Your task to perform on an android device: Search for Mexican restaurants on Maps Image 0: 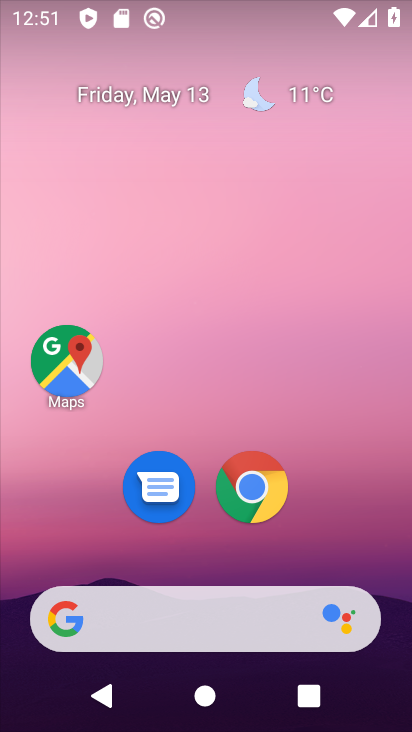
Step 0: click (268, 501)
Your task to perform on an android device: Search for Mexican restaurants on Maps Image 1: 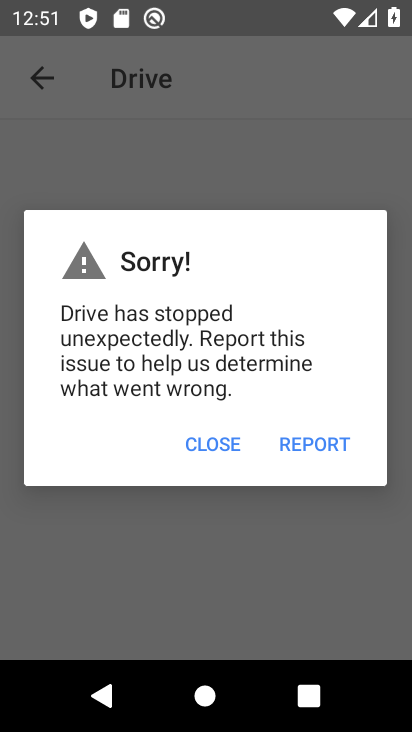
Step 1: press home button
Your task to perform on an android device: Search for Mexican restaurants on Maps Image 2: 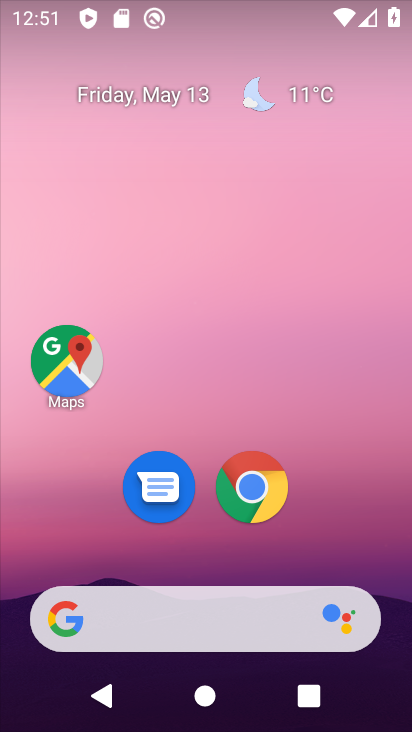
Step 2: click (69, 370)
Your task to perform on an android device: Search for Mexican restaurants on Maps Image 3: 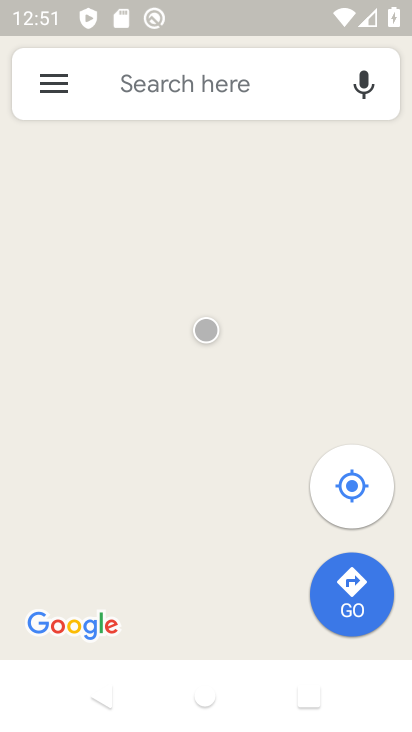
Step 3: click (224, 93)
Your task to perform on an android device: Search for Mexican restaurants on Maps Image 4: 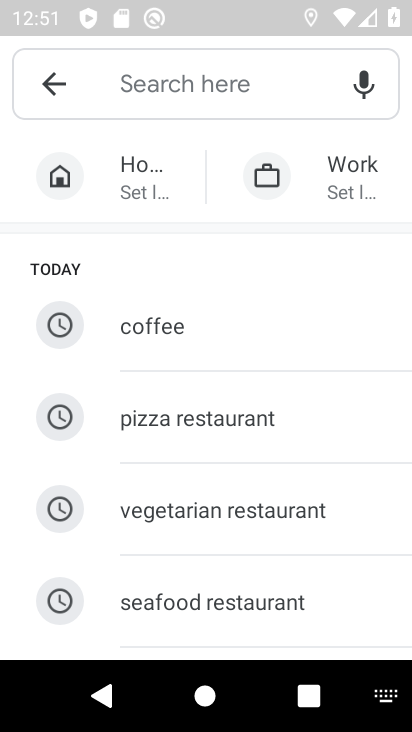
Step 4: type "mexican restaurant"
Your task to perform on an android device: Search for Mexican restaurants on Maps Image 5: 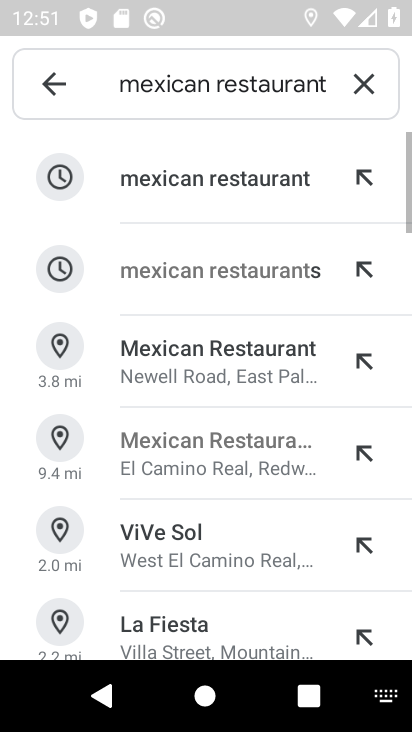
Step 5: click (228, 196)
Your task to perform on an android device: Search for Mexican restaurants on Maps Image 6: 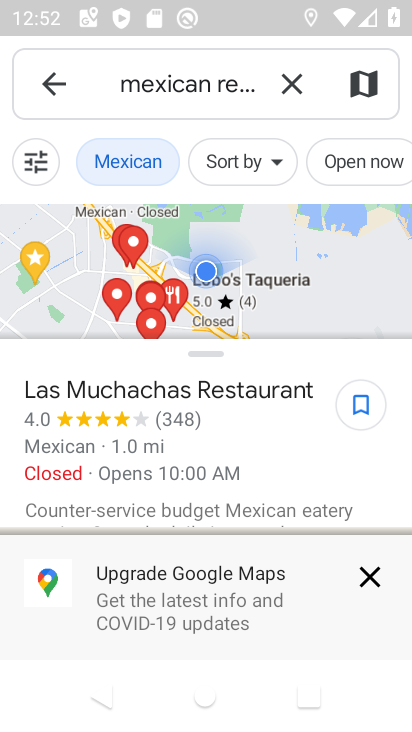
Step 6: task complete